Your task to perform on an android device: allow cookies in the chrome app Image 0: 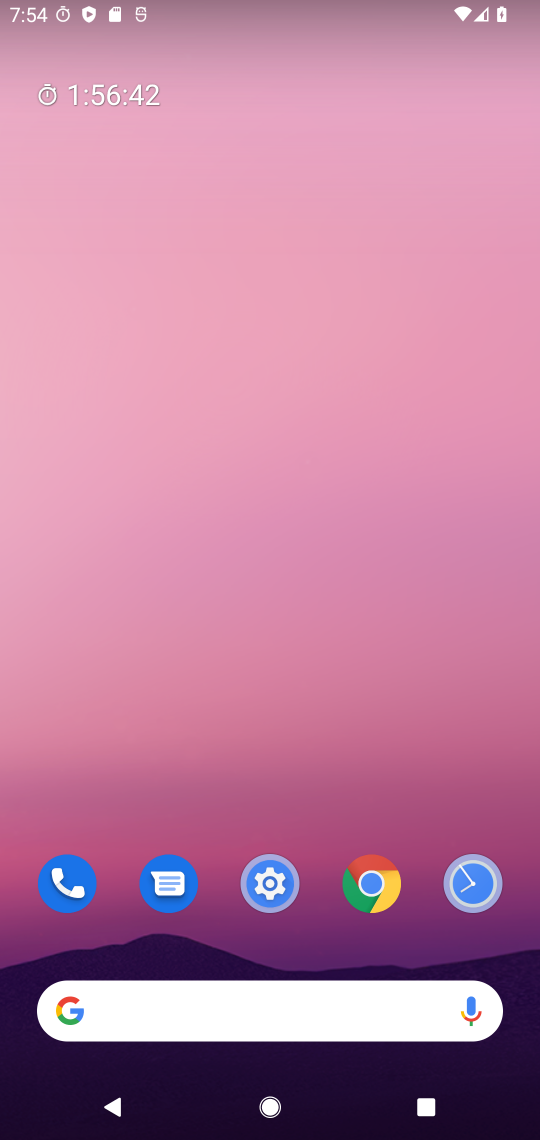
Step 0: click (392, 888)
Your task to perform on an android device: allow cookies in the chrome app Image 1: 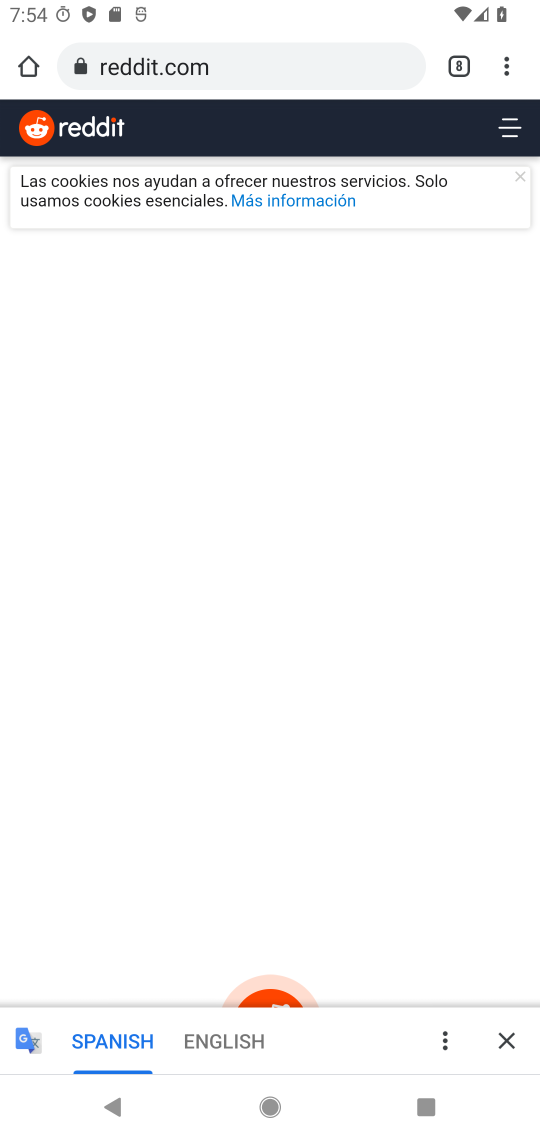
Step 1: click (509, 73)
Your task to perform on an android device: allow cookies in the chrome app Image 2: 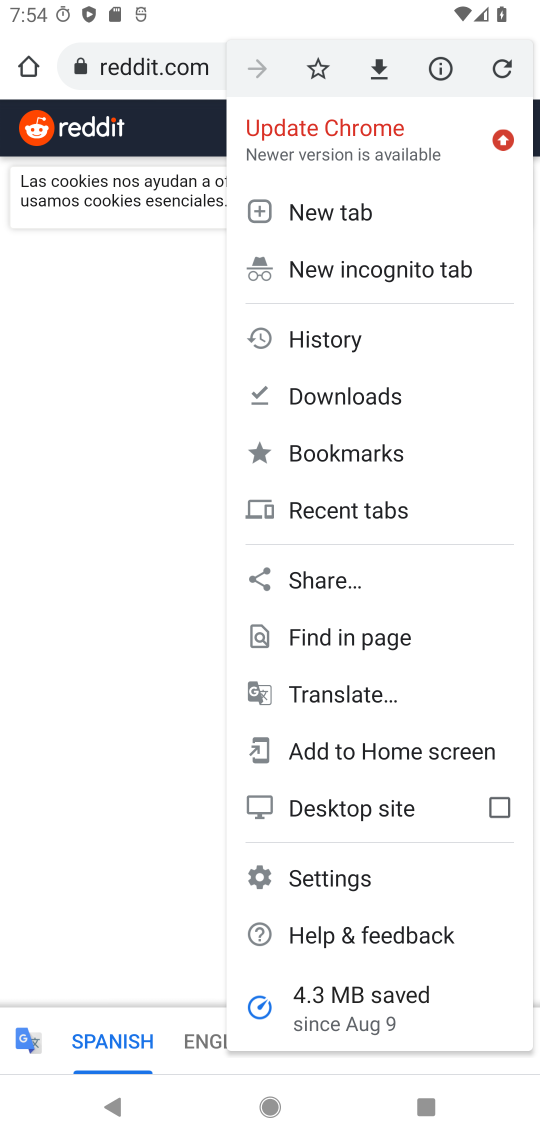
Step 2: click (297, 883)
Your task to perform on an android device: allow cookies in the chrome app Image 3: 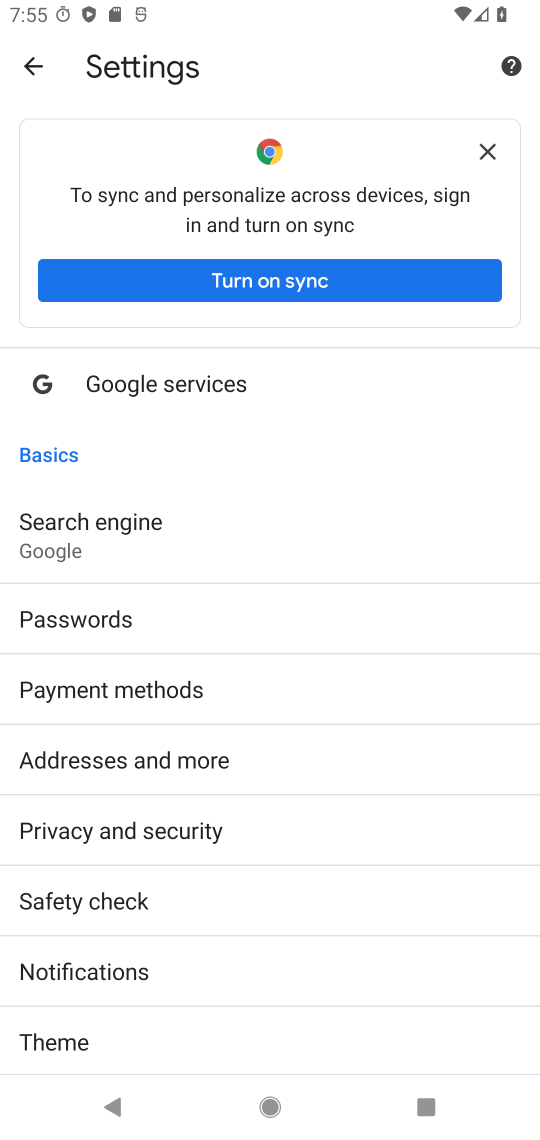
Step 3: drag from (174, 975) to (174, 517)
Your task to perform on an android device: allow cookies in the chrome app Image 4: 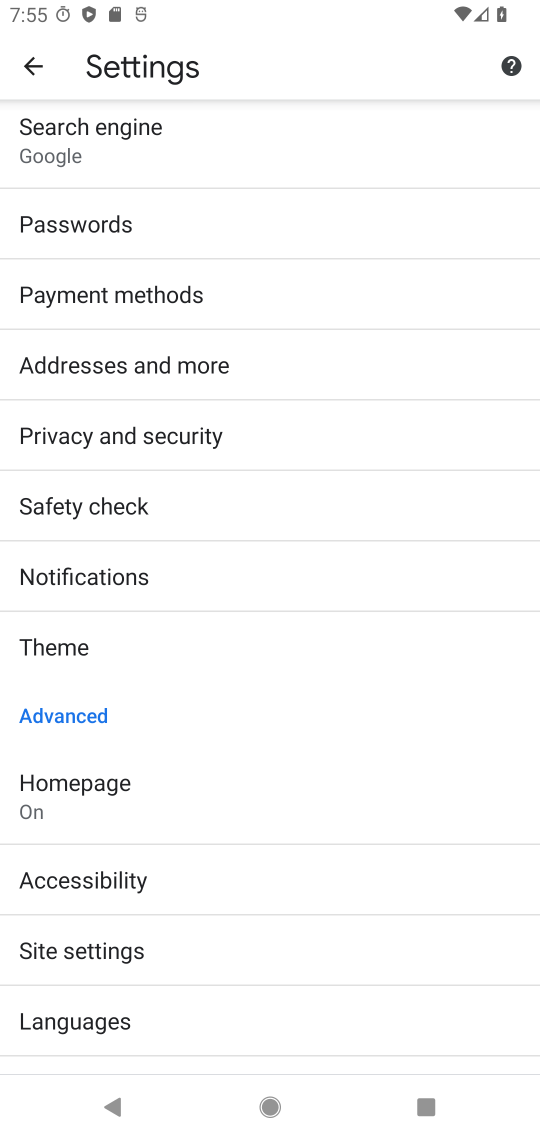
Step 4: click (138, 952)
Your task to perform on an android device: allow cookies in the chrome app Image 5: 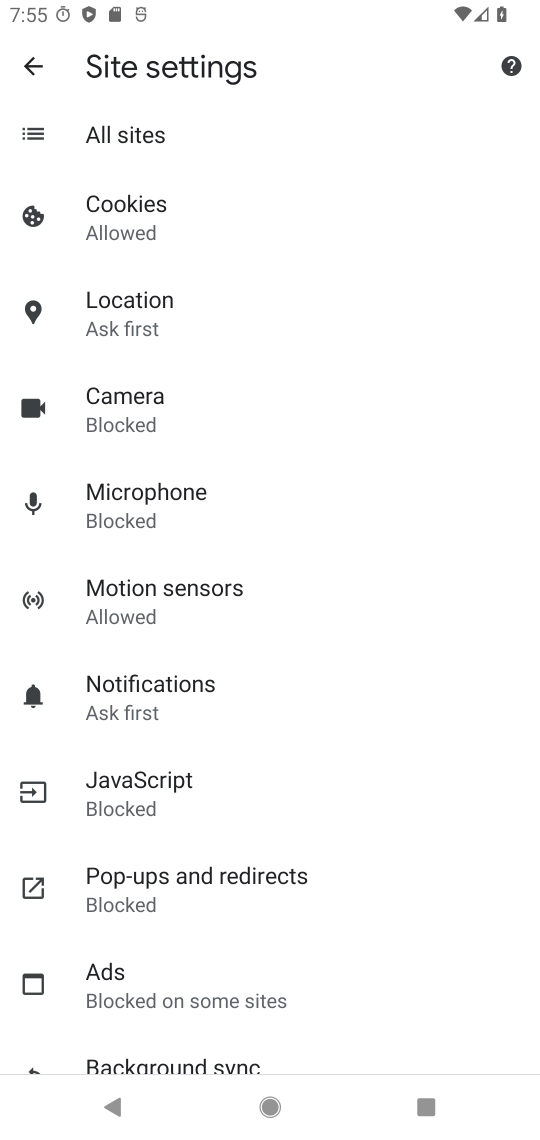
Step 5: click (146, 203)
Your task to perform on an android device: allow cookies in the chrome app Image 6: 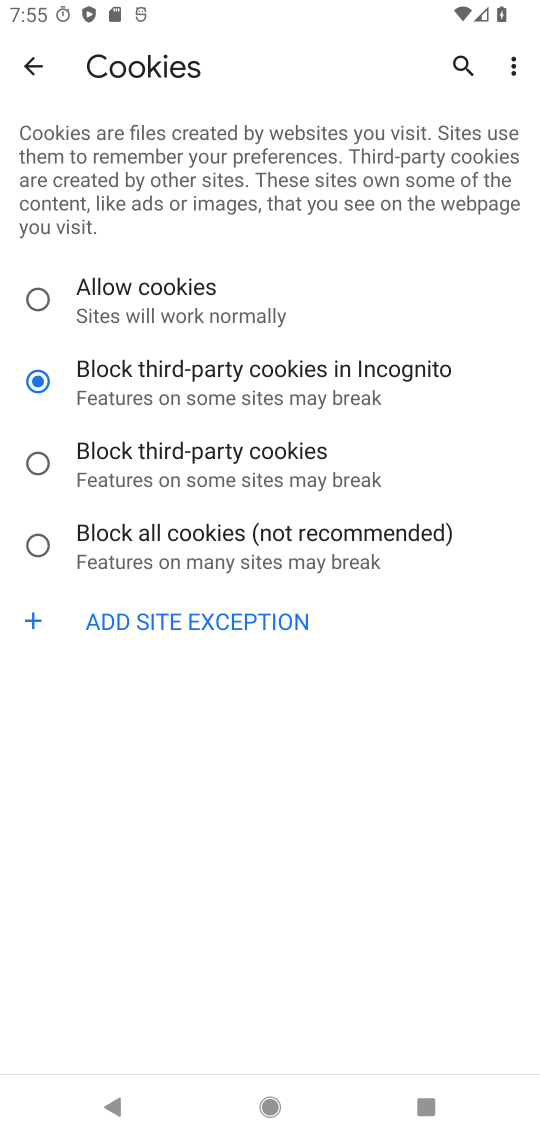
Step 6: click (164, 298)
Your task to perform on an android device: allow cookies in the chrome app Image 7: 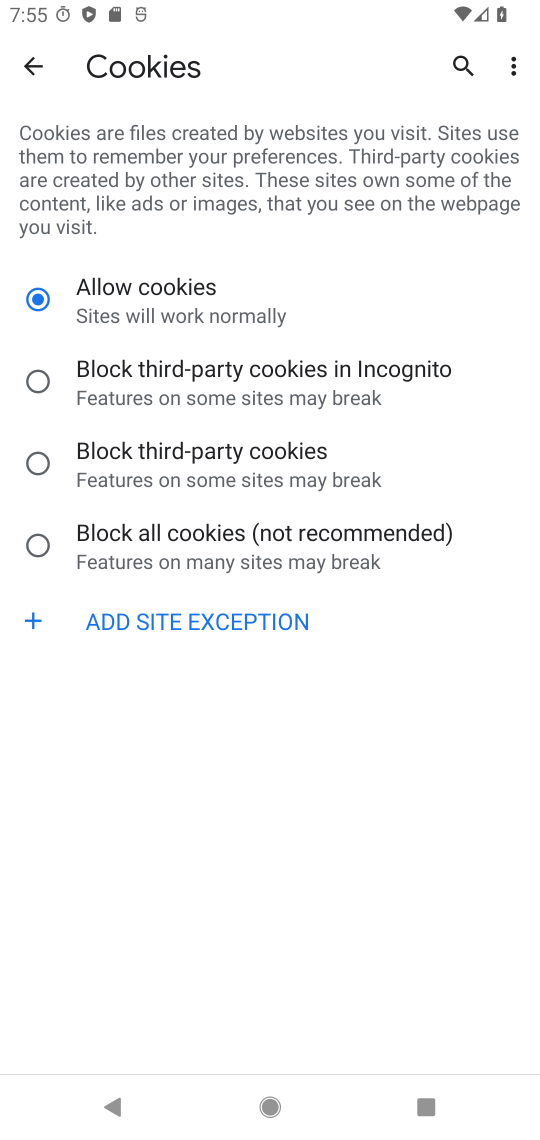
Step 7: task complete